Your task to perform on an android device: open a bookmark in the chrome app Image 0: 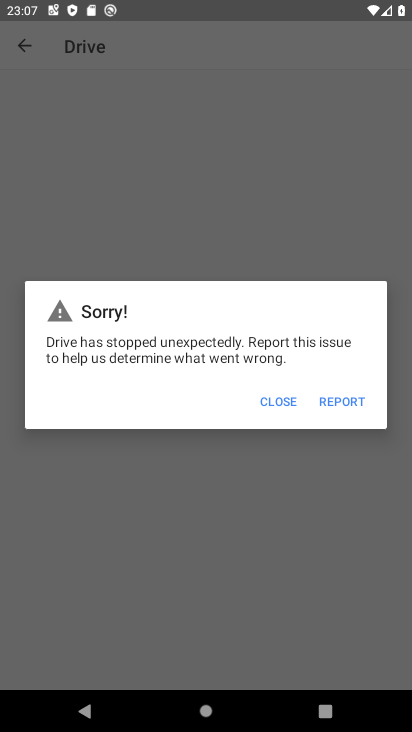
Step 0: press home button
Your task to perform on an android device: open a bookmark in the chrome app Image 1: 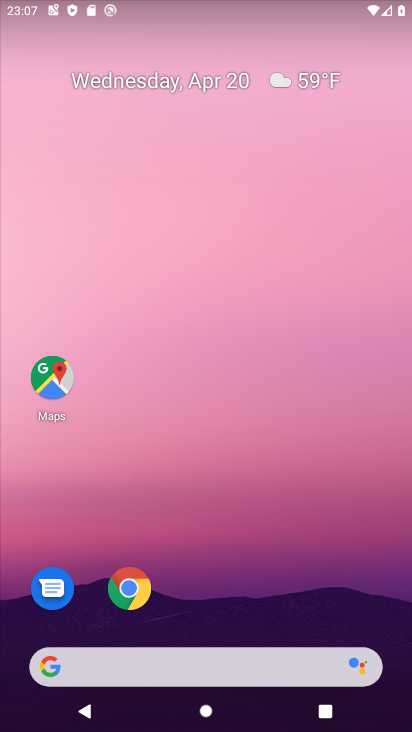
Step 1: click (127, 588)
Your task to perform on an android device: open a bookmark in the chrome app Image 2: 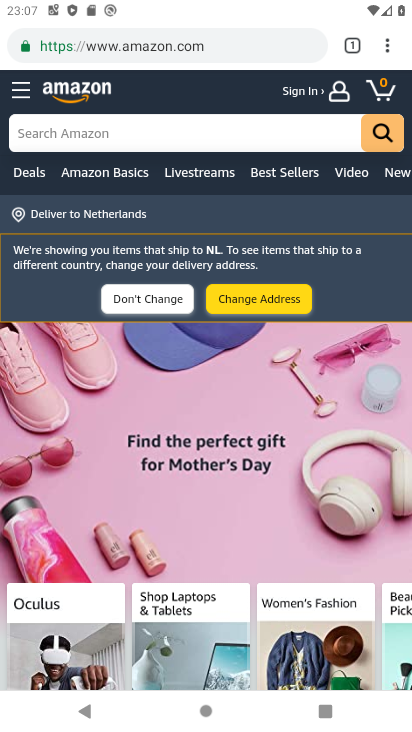
Step 2: task complete